Your task to perform on an android device: check storage Image 0: 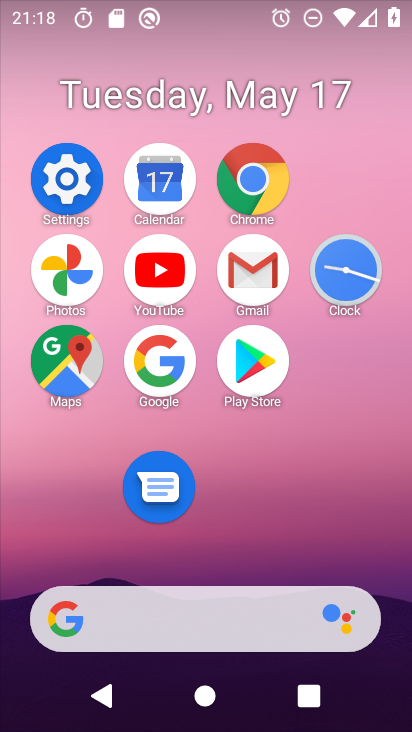
Step 0: click (45, 177)
Your task to perform on an android device: check storage Image 1: 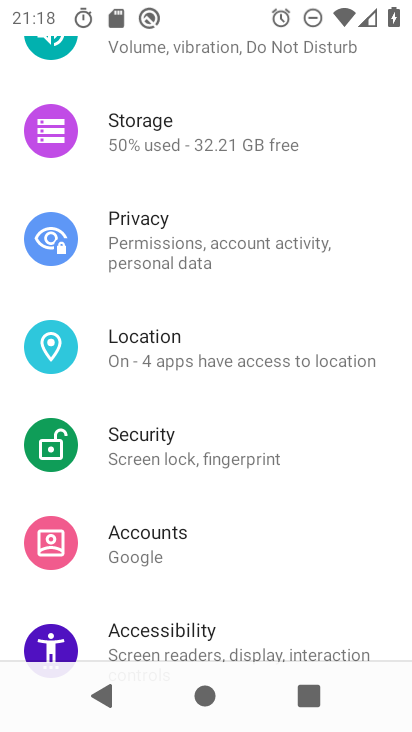
Step 1: click (196, 139)
Your task to perform on an android device: check storage Image 2: 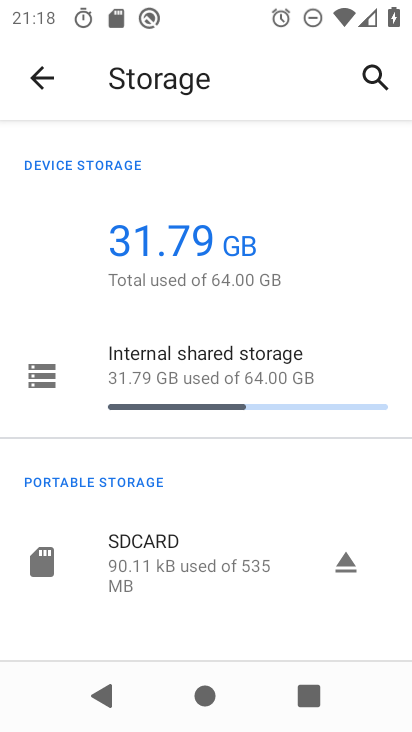
Step 2: task complete